Your task to perform on an android device: Clear the shopping cart on target. Add "bose soundlink mini" to the cart on target, then select checkout. Image 0: 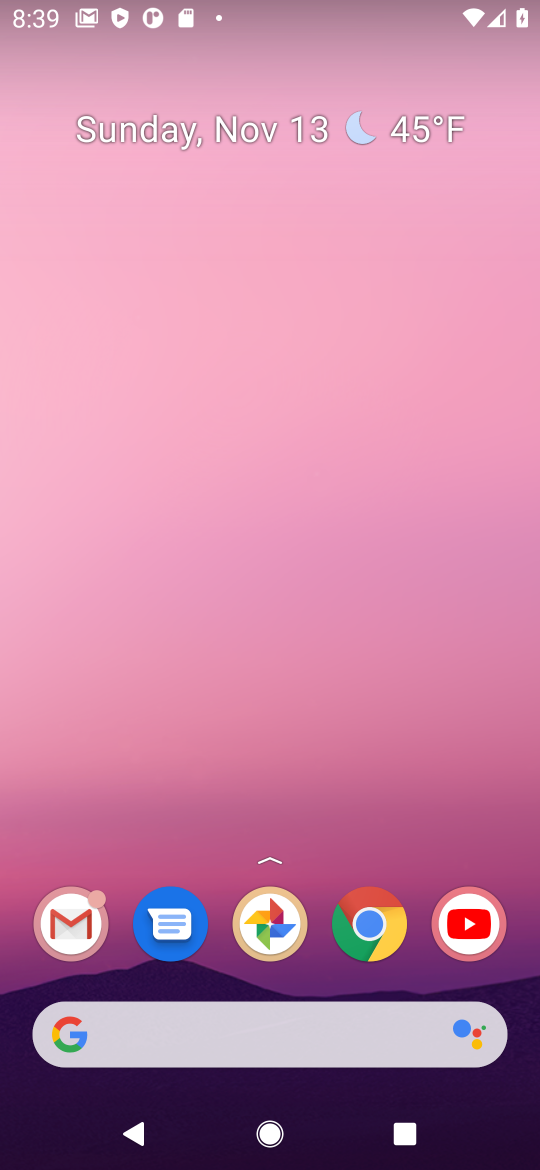
Step 0: click (369, 927)
Your task to perform on an android device: Clear the shopping cart on target. Add "bose soundlink mini" to the cart on target, then select checkout. Image 1: 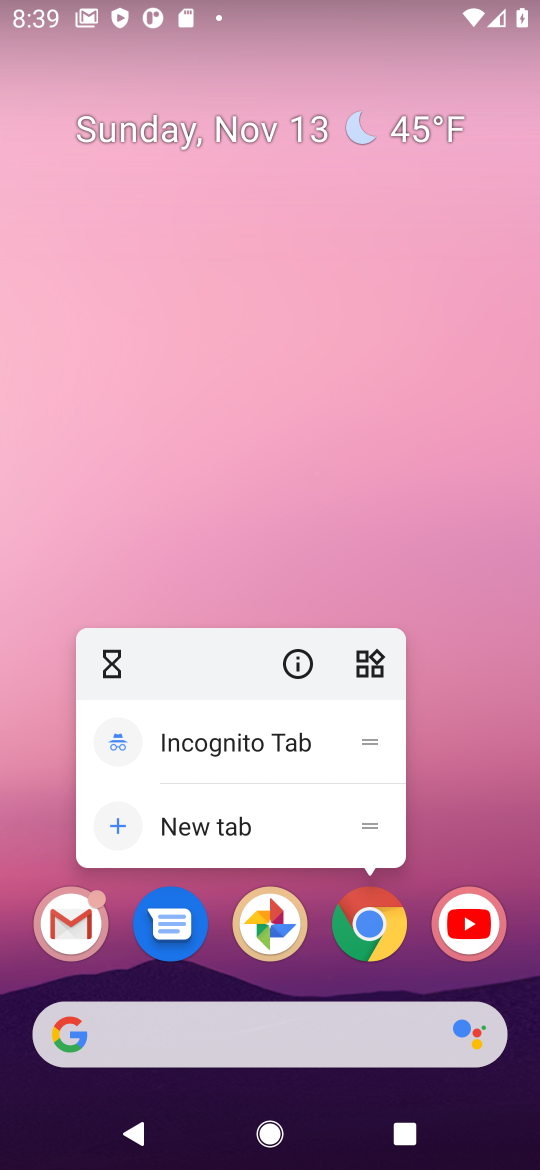
Step 1: click (362, 928)
Your task to perform on an android device: Clear the shopping cart on target. Add "bose soundlink mini" to the cart on target, then select checkout. Image 2: 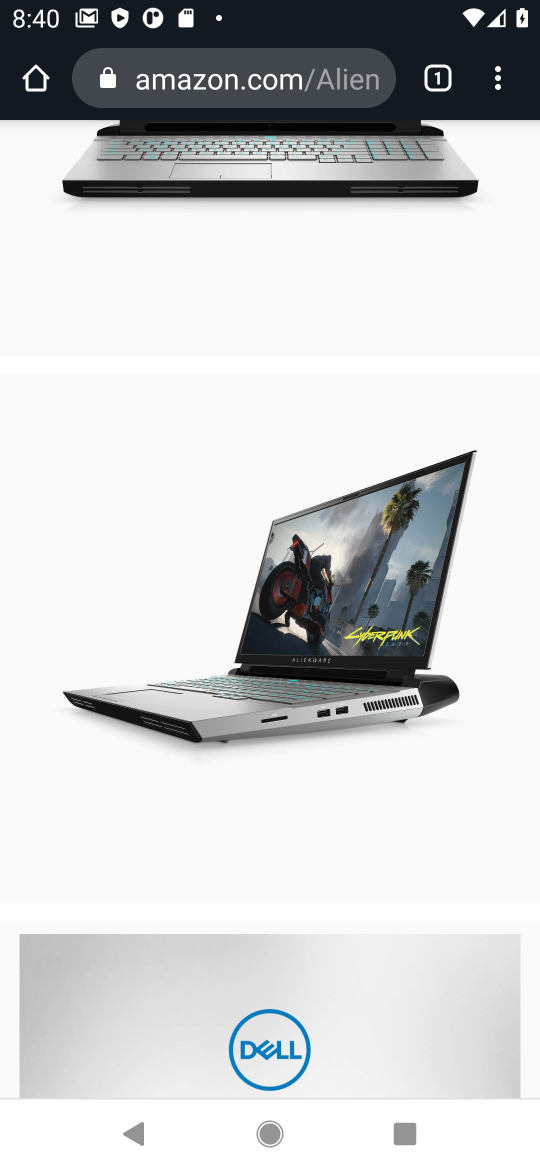
Step 2: click (302, 88)
Your task to perform on an android device: Clear the shopping cart on target. Add "bose soundlink mini" to the cart on target, then select checkout. Image 3: 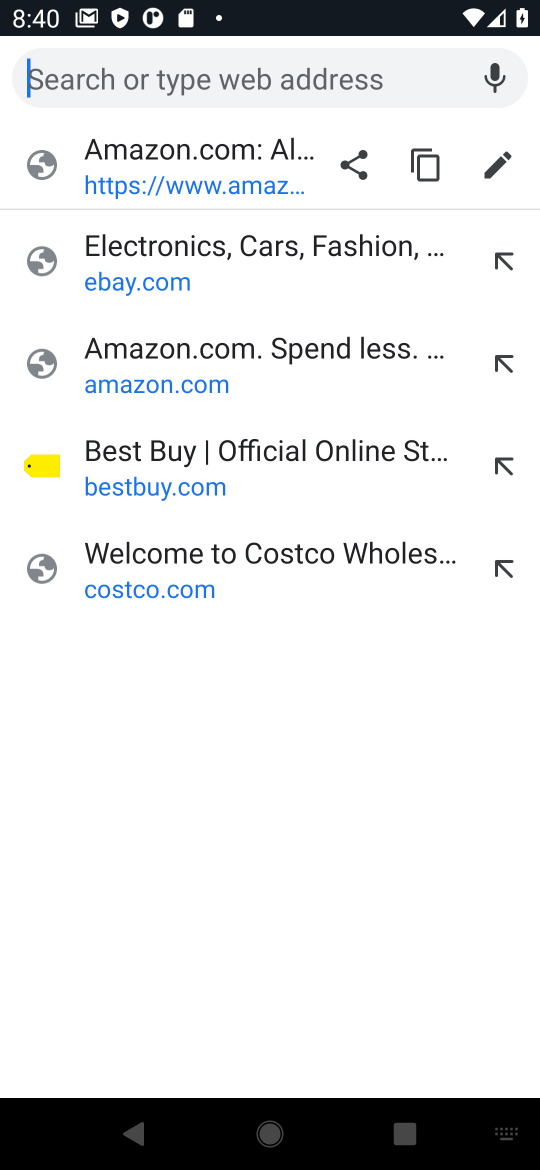
Step 3: type " target"
Your task to perform on an android device: Clear the shopping cart on target. Add "bose soundlink mini" to the cart on target, then select checkout. Image 4: 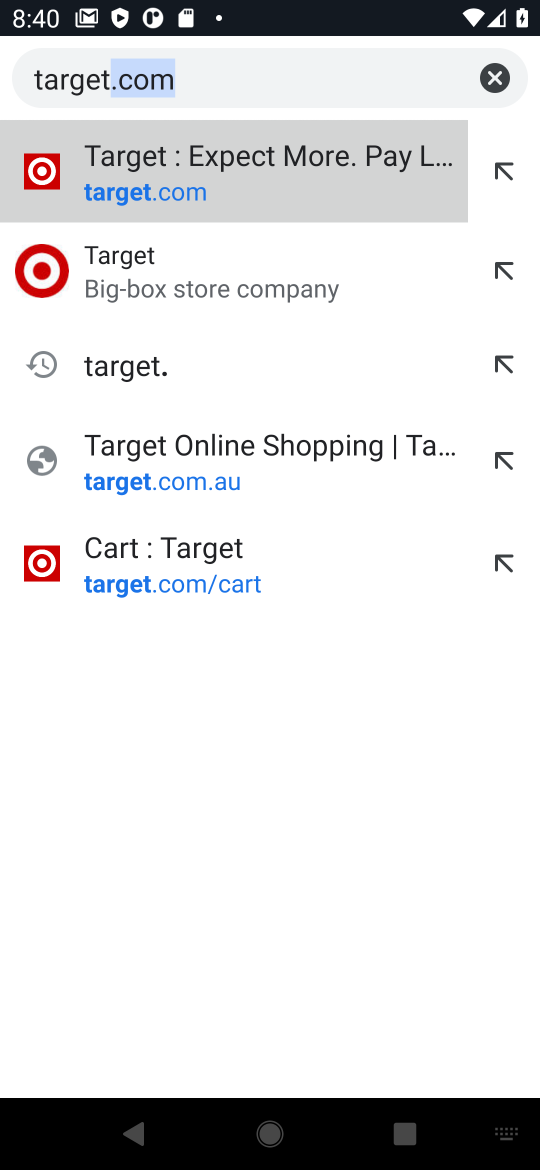
Step 4: press enter
Your task to perform on an android device: Clear the shopping cart on target. Add "bose soundlink mini" to the cart on target, then select checkout. Image 5: 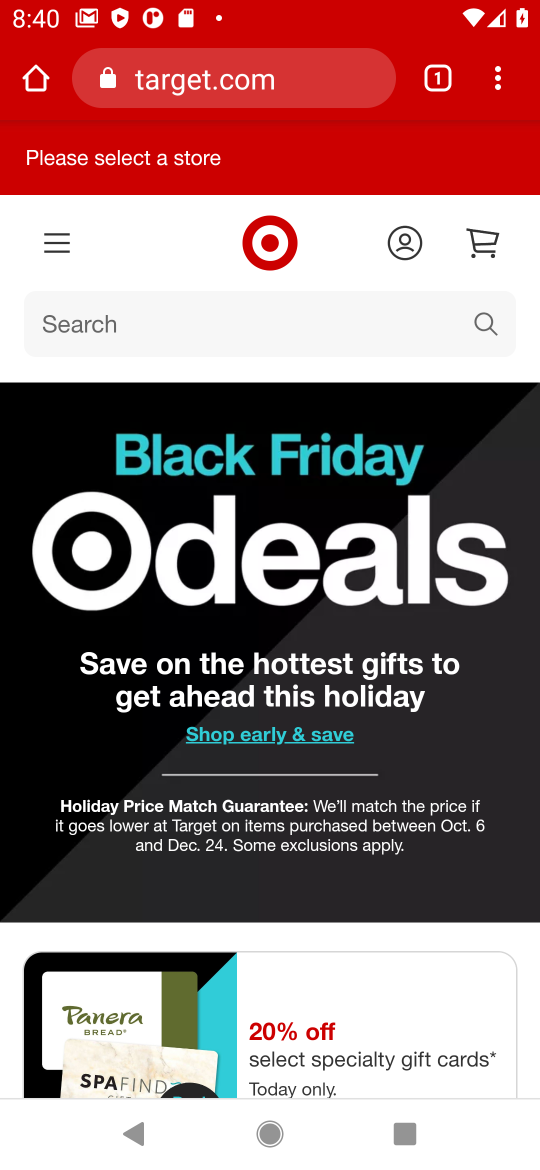
Step 5: click (105, 320)
Your task to perform on an android device: Clear the shopping cart on target. Add "bose soundlink mini" to the cart on target, then select checkout. Image 6: 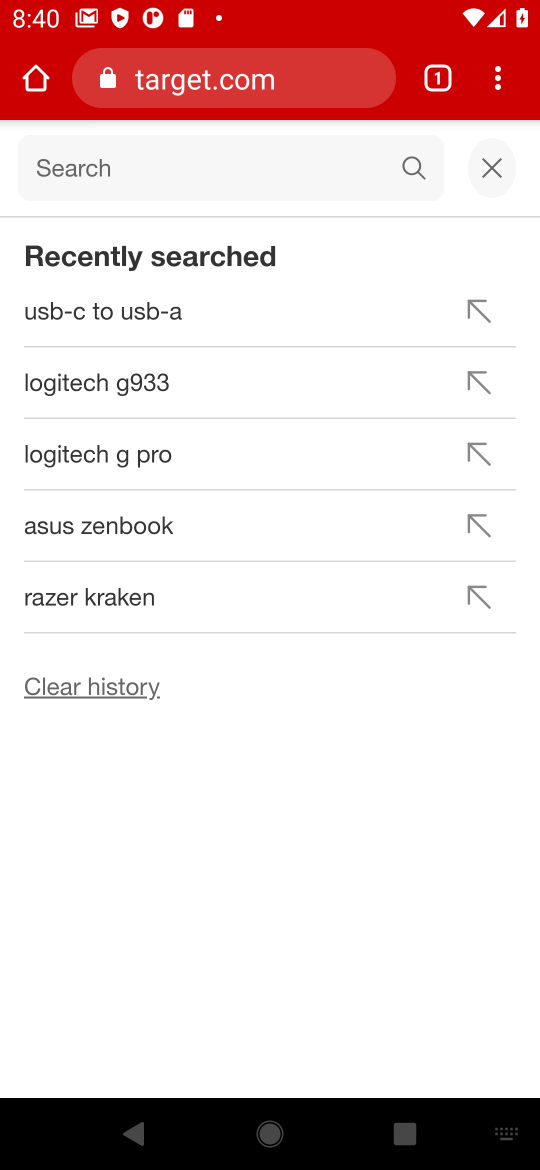
Step 6: type "bose soundlink mini"
Your task to perform on an android device: Clear the shopping cart on target. Add "bose soundlink mini" to the cart on target, then select checkout. Image 7: 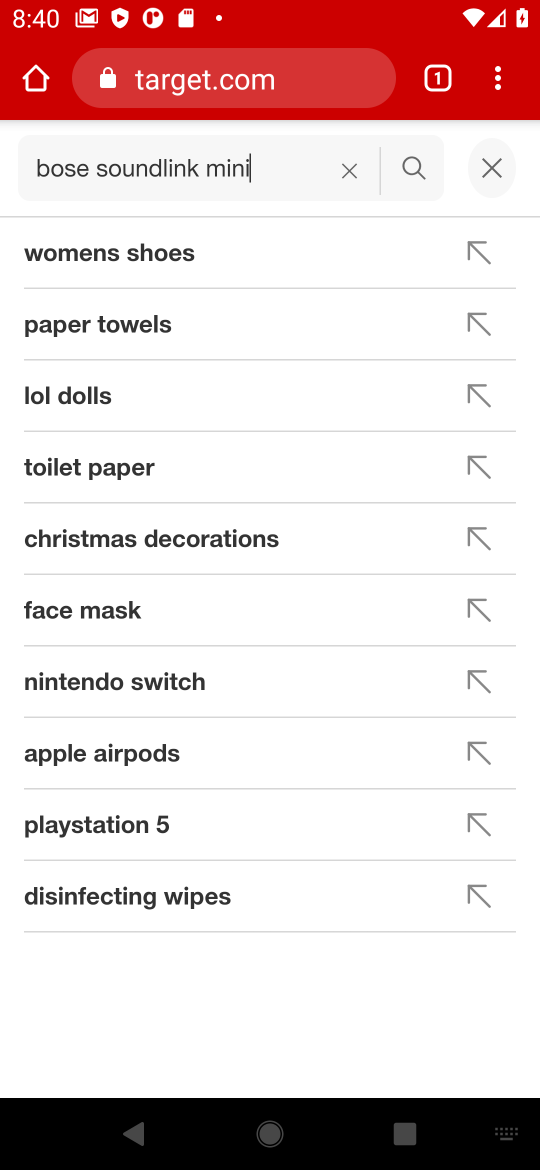
Step 7: press enter
Your task to perform on an android device: Clear the shopping cart on target. Add "bose soundlink mini" to the cart on target, then select checkout. Image 8: 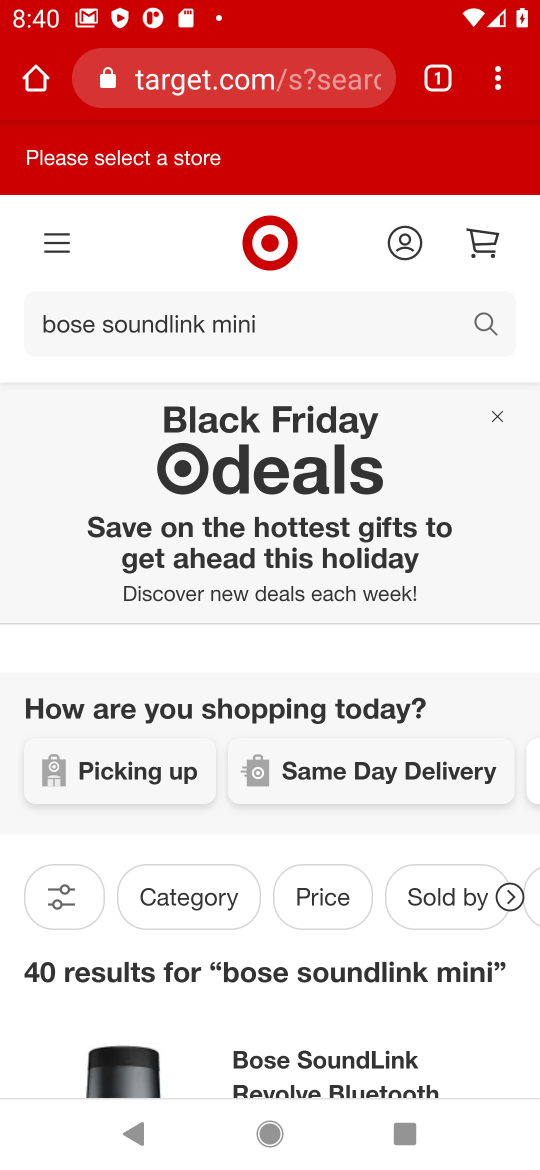
Step 8: task complete